Your task to perform on an android device: Go to location settings Image 0: 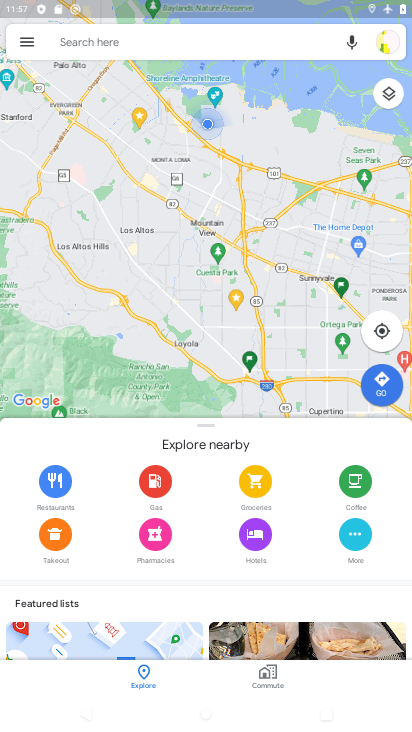
Step 0: press home button
Your task to perform on an android device: Go to location settings Image 1: 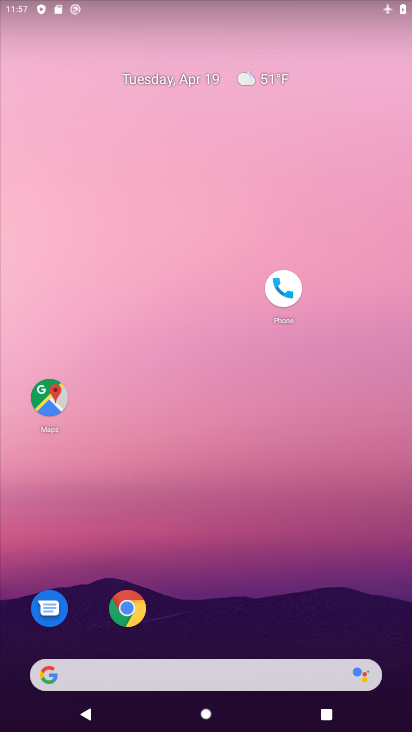
Step 1: drag from (170, 636) to (228, 113)
Your task to perform on an android device: Go to location settings Image 2: 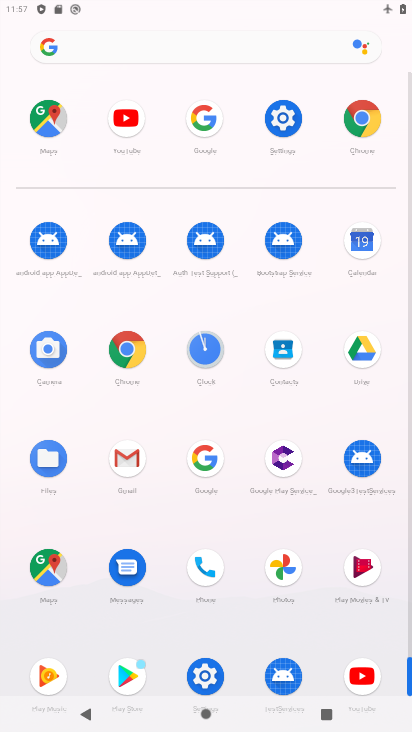
Step 2: click (287, 112)
Your task to perform on an android device: Go to location settings Image 3: 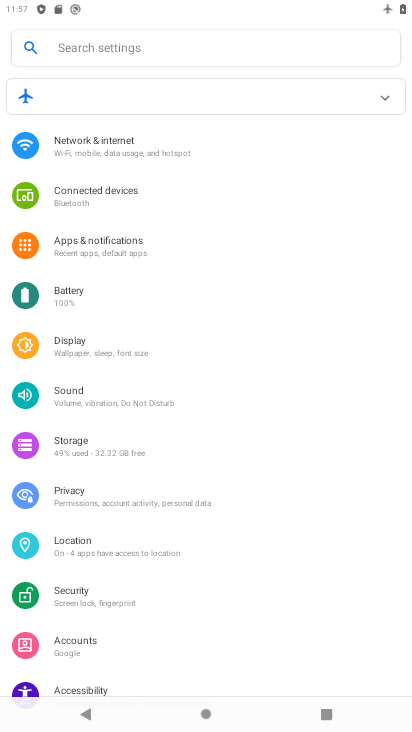
Step 3: click (115, 560)
Your task to perform on an android device: Go to location settings Image 4: 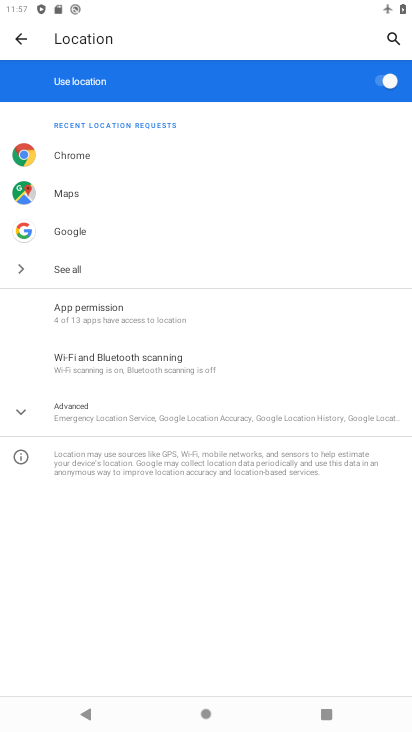
Step 4: task complete